Your task to perform on an android device: Do I have any events this weekend? Image 0: 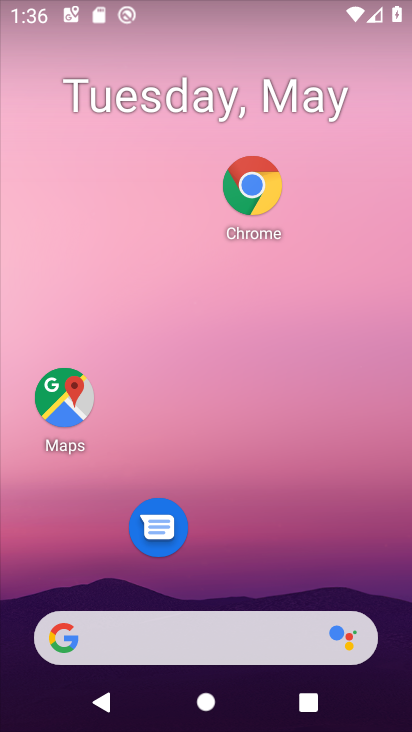
Step 0: drag from (250, 560) to (161, 87)
Your task to perform on an android device: Do I have any events this weekend? Image 1: 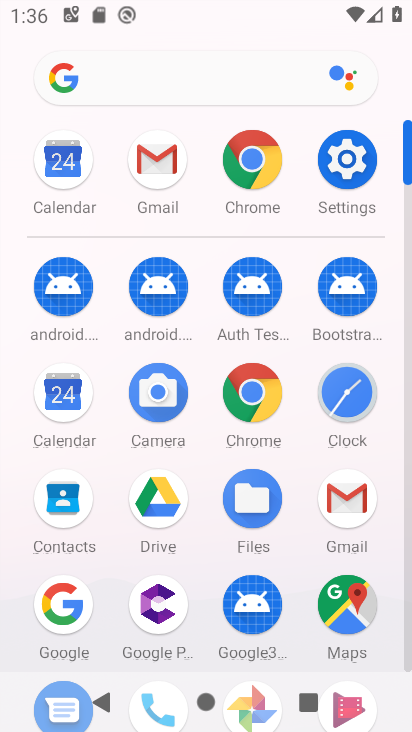
Step 1: click (68, 388)
Your task to perform on an android device: Do I have any events this weekend? Image 2: 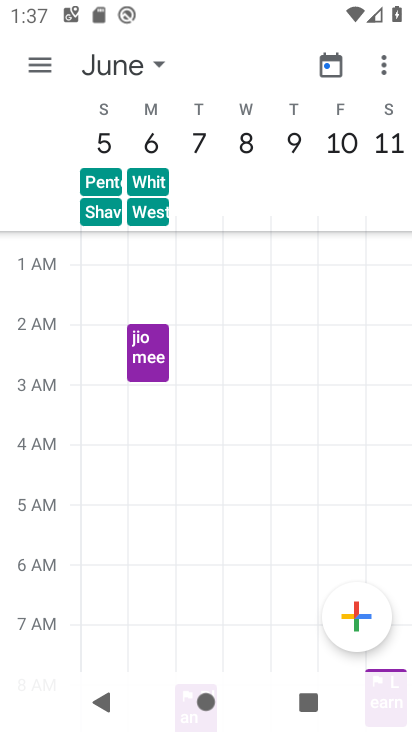
Step 2: click (157, 63)
Your task to perform on an android device: Do I have any events this weekend? Image 3: 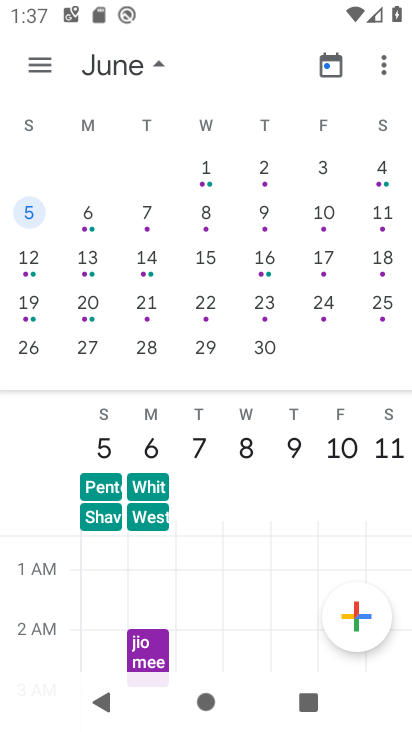
Step 3: drag from (23, 221) to (394, 277)
Your task to perform on an android device: Do I have any events this weekend? Image 4: 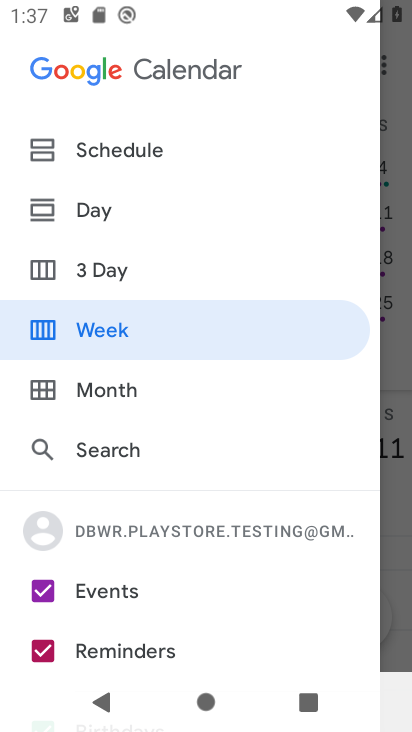
Step 4: click (118, 321)
Your task to perform on an android device: Do I have any events this weekend? Image 5: 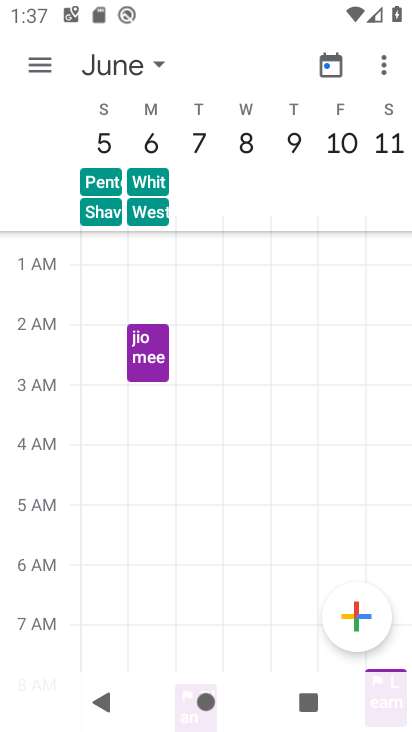
Step 5: click (164, 62)
Your task to perform on an android device: Do I have any events this weekend? Image 6: 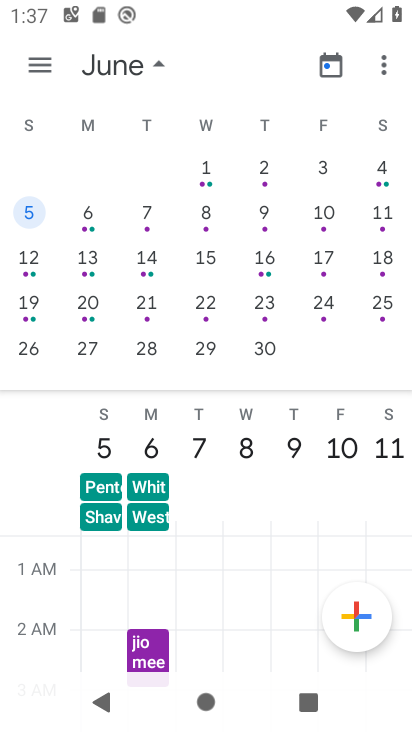
Step 6: drag from (21, 265) to (390, 275)
Your task to perform on an android device: Do I have any events this weekend? Image 7: 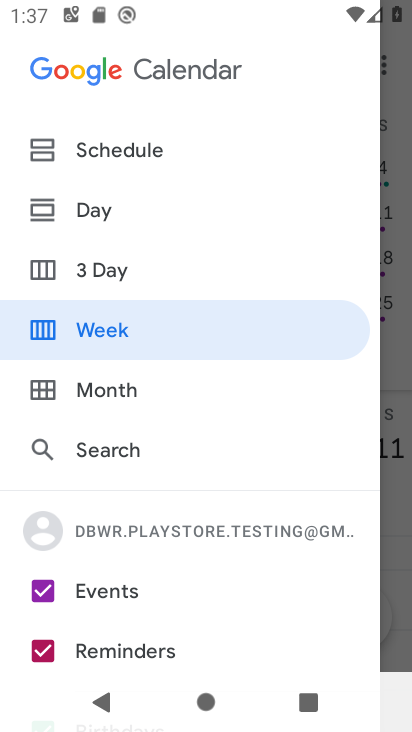
Step 7: click (385, 275)
Your task to perform on an android device: Do I have any events this weekend? Image 8: 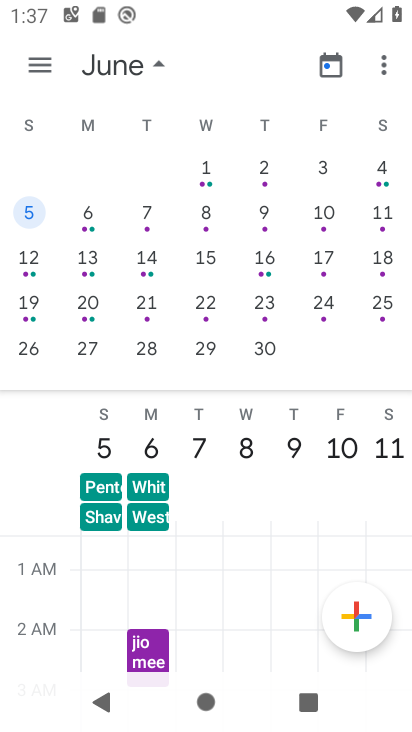
Step 8: drag from (97, 220) to (383, 242)
Your task to perform on an android device: Do I have any events this weekend? Image 9: 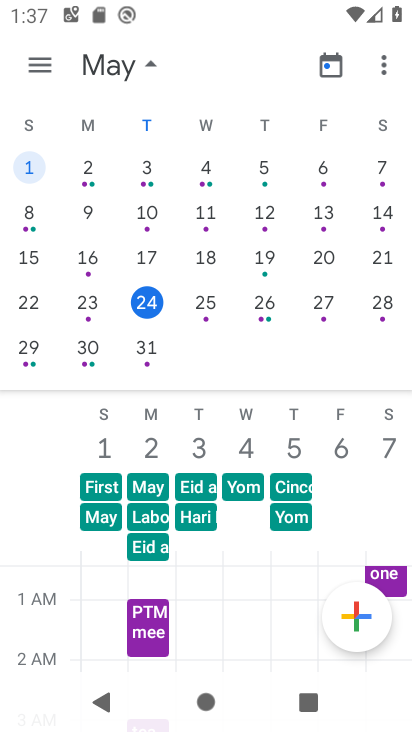
Step 9: click (199, 302)
Your task to perform on an android device: Do I have any events this weekend? Image 10: 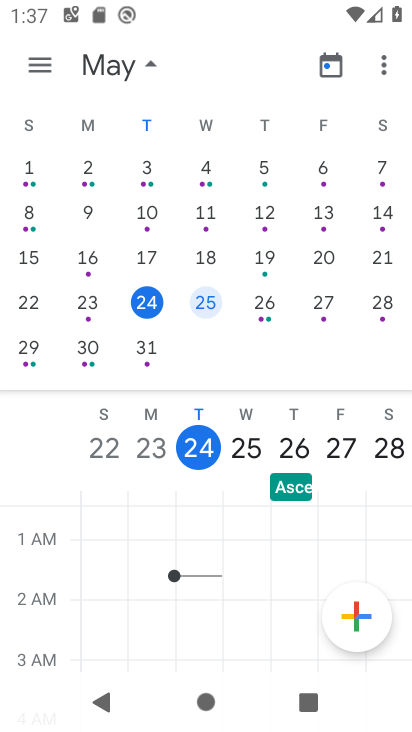
Step 10: task complete